Your task to perform on an android device: What's on my calendar tomorrow? Image 0: 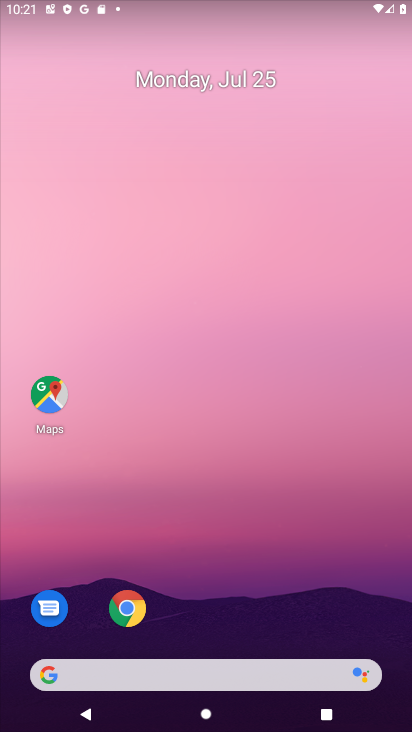
Step 0: drag from (220, 596) to (228, 142)
Your task to perform on an android device: What's on my calendar tomorrow? Image 1: 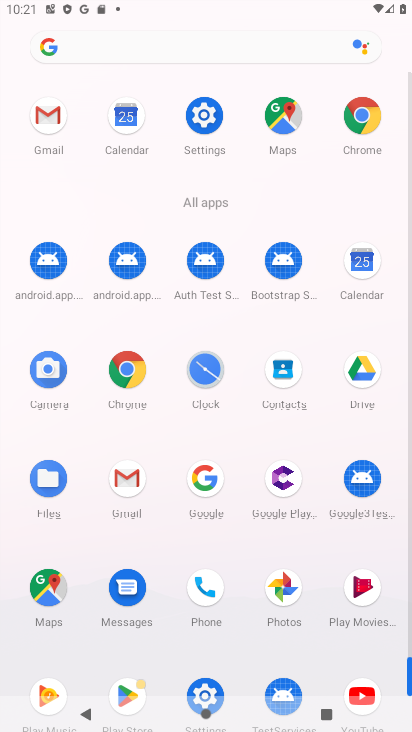
Step 1: click (362, 261)
Your task to perform on an android device: What's on my calendar tomorrow? Image 2: 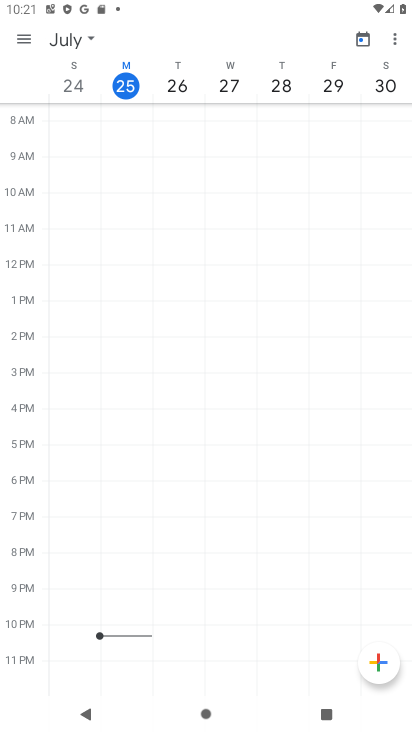
Step 2: click (222, 82)
Your task to perform on an android device: What's on my calendar tomorrow? Image 3: 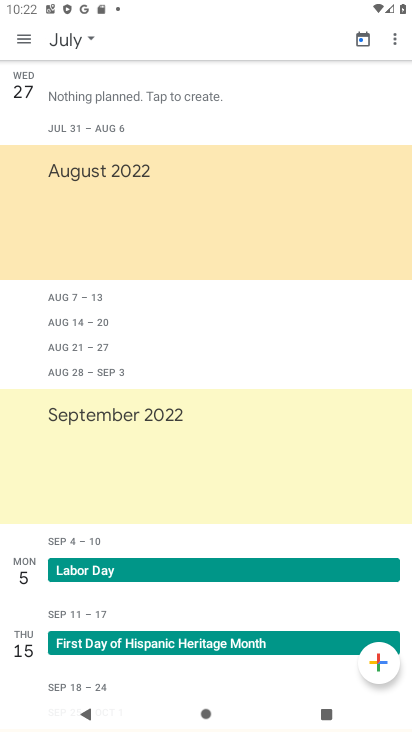
Step 3: task complete